Your task to perform on an android device: Go to Maps Image 0: 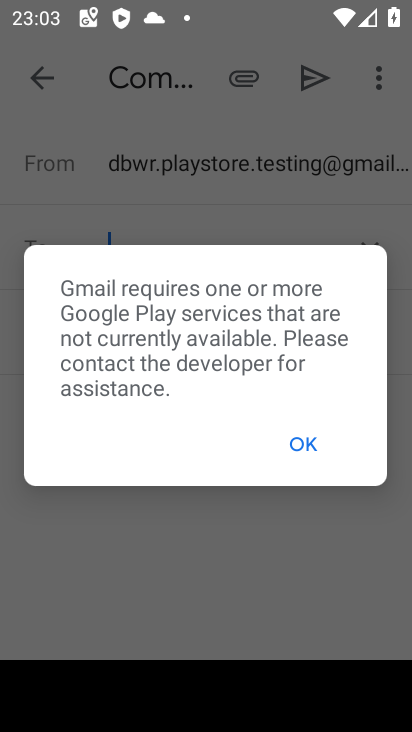
Step 0: press home button
Your task to perform on an android device: Go to Maps Image 1: 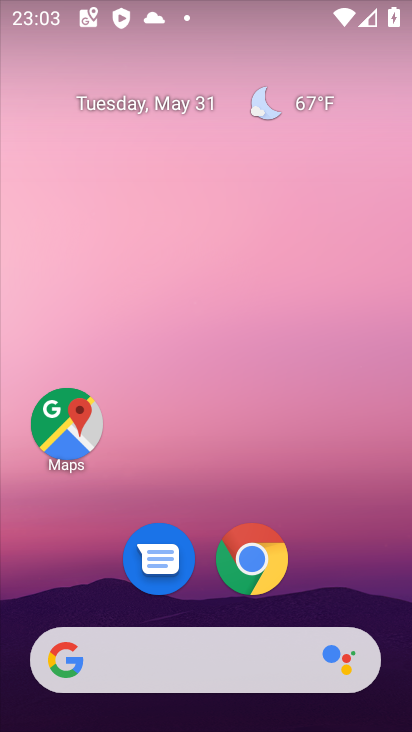
Step 1: click (72, 434)
Your task to perform on an android device: Go to Maps Image 2: 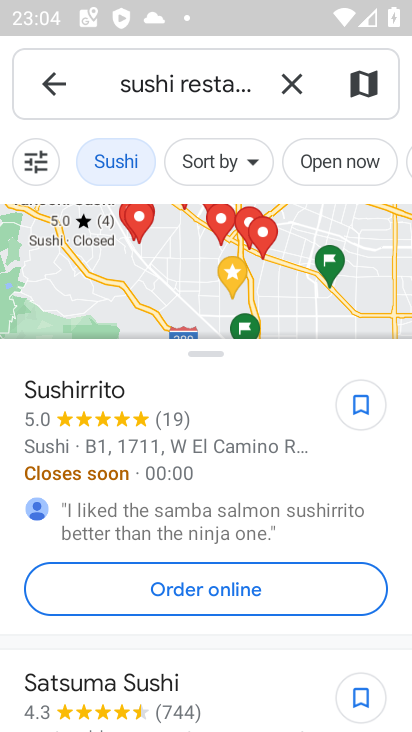
Step 2: task complete